Your task to perform on an android device: Do I have any events today? Image 0: 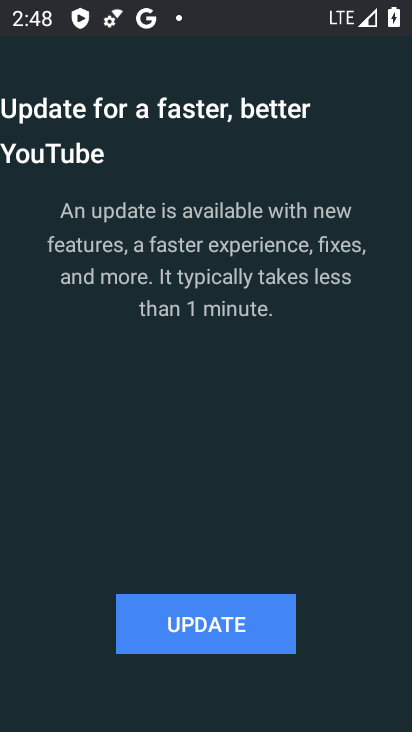
Step 0: press back button
Your task to perform on an android device: Do I have any events today? Image 1: 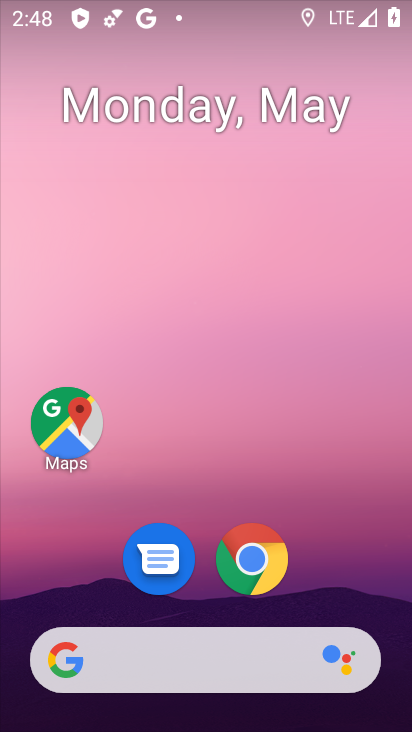
Step 1: drag from (320, 589) to (253, 69)
Your task to perform on an android device: Do I have any events today? Image 2: 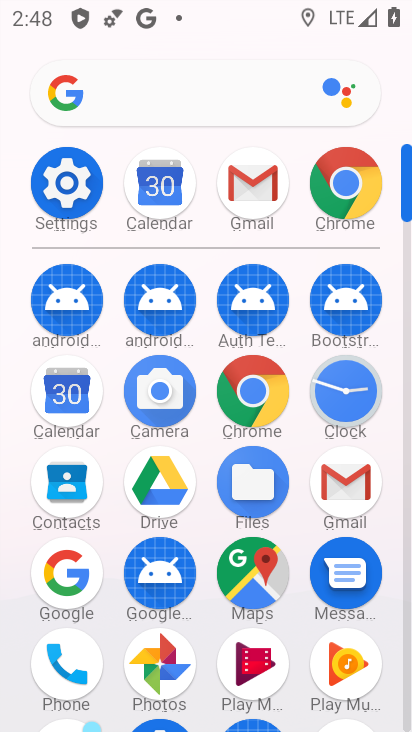
Step 2: click (67, 393)
Your task to perform on an android device: Do I have any events today? Image 3: 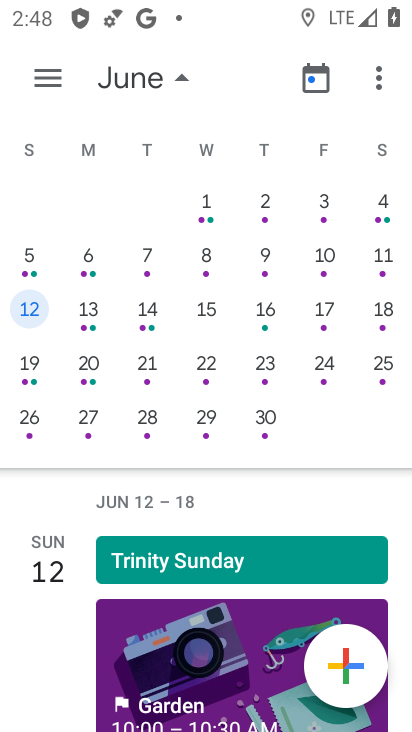
Step 3: drag from (139, 283) to (410, 312)
Your task to perform on an android device: Do I have any events today? Image 4: 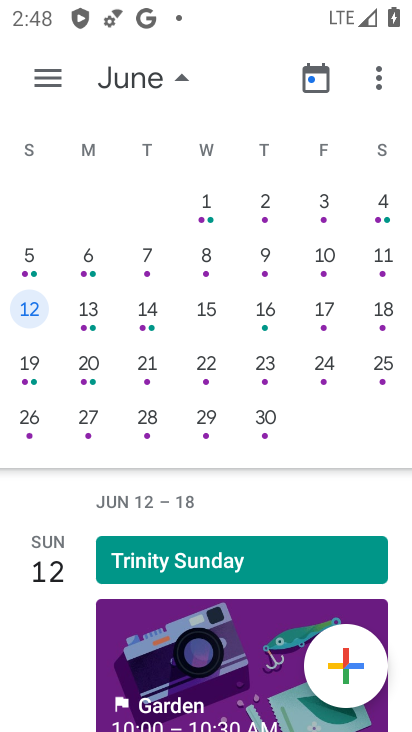
Step 4: drag from (57, 351) to (403, 350)
Your task to perform on an android device: Do I have any events today? Image 5: 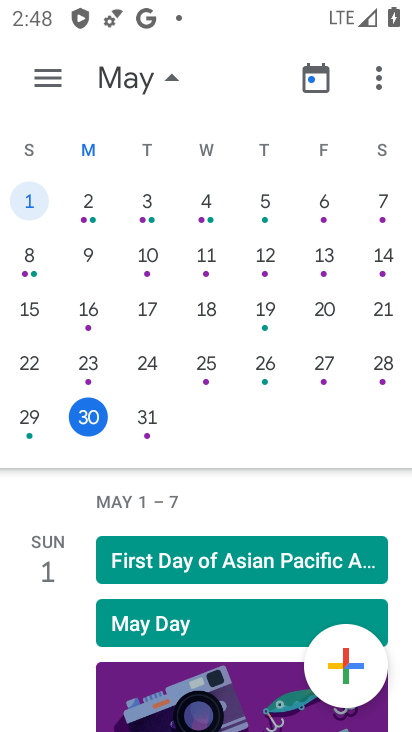
Step 5: click (93, 416)
Your task to perform on an android device: Do I have any events today? Image 6: 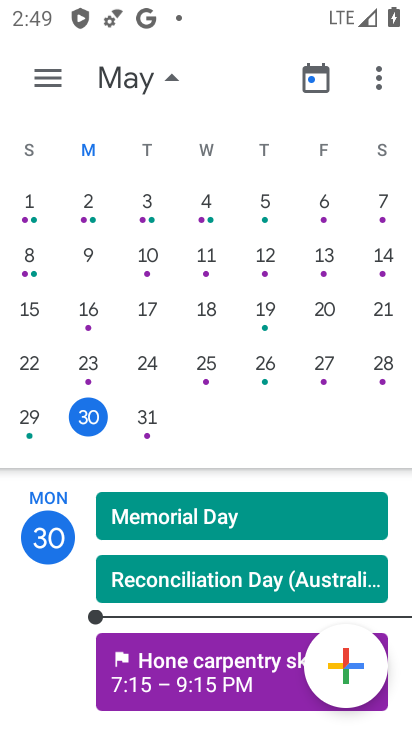
Step 6: task complete